Your task to perform on an android device: open app "Venmo" (install if not already installed) Image 0: 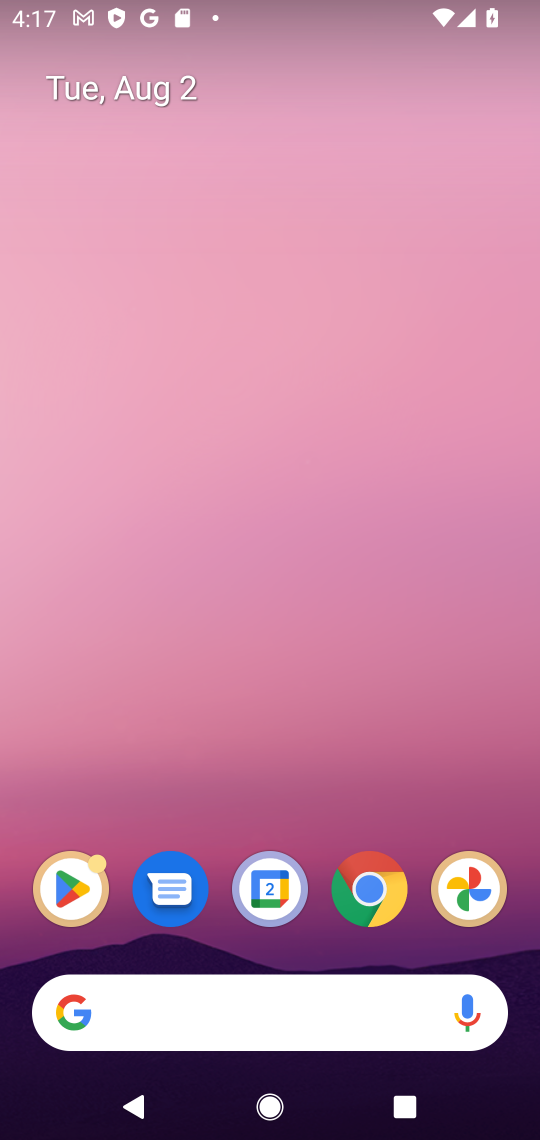
Step 0: drag from (490, 809) to (441, 683)
Your task to perform on an android device: open app "Venmo" (install if not already installed) Image 1: 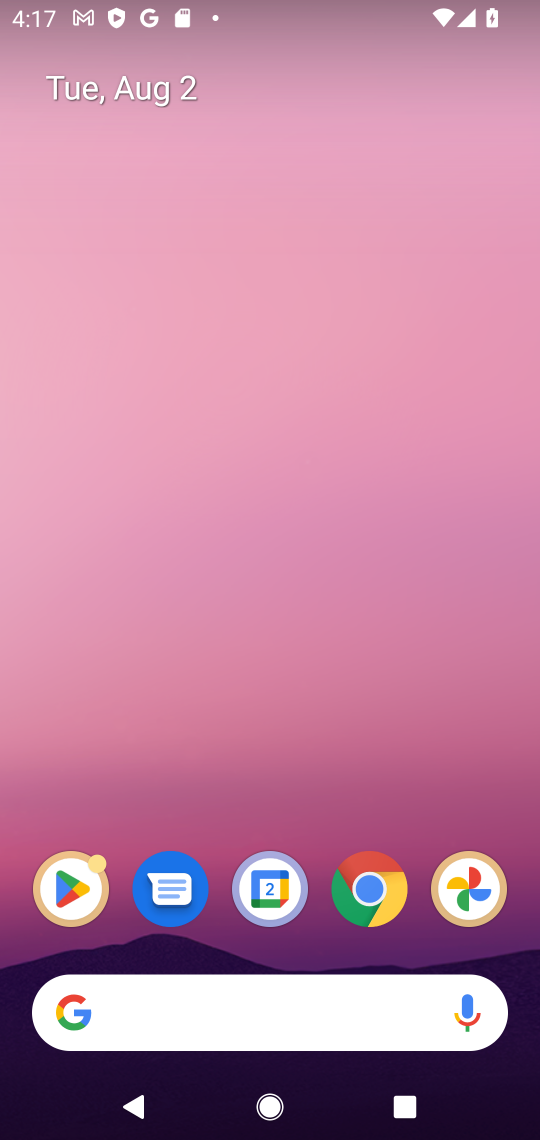
Step 1: click (101, 882)
Your task to perform on an android device: open app "Venmo" (install if not already installed) Image 2: 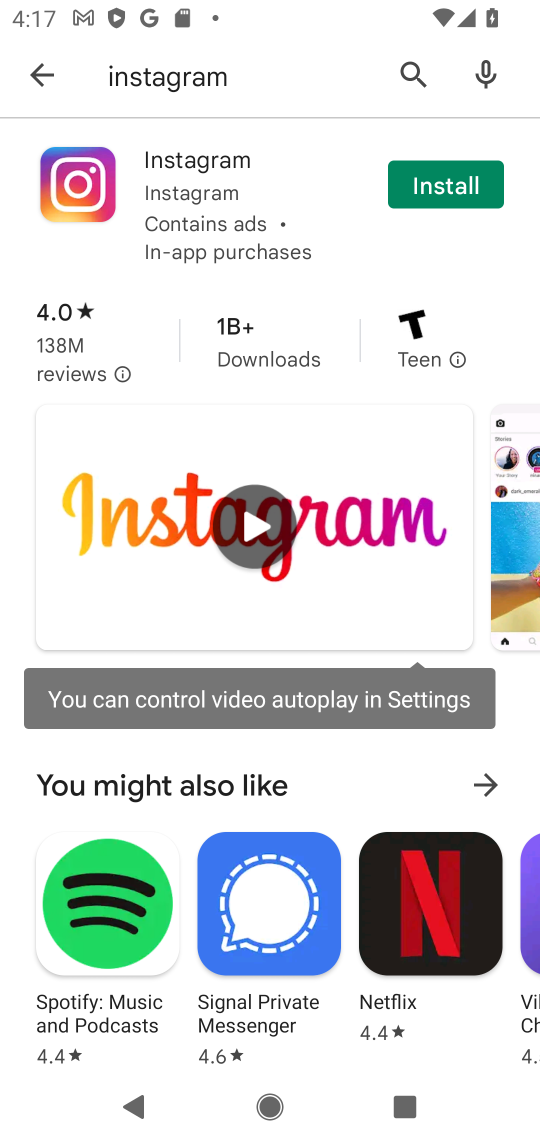
Step 2: click (409, 79)
Your task to perform on an android device: open app "Venmo" (install if not already installed) Image 3: 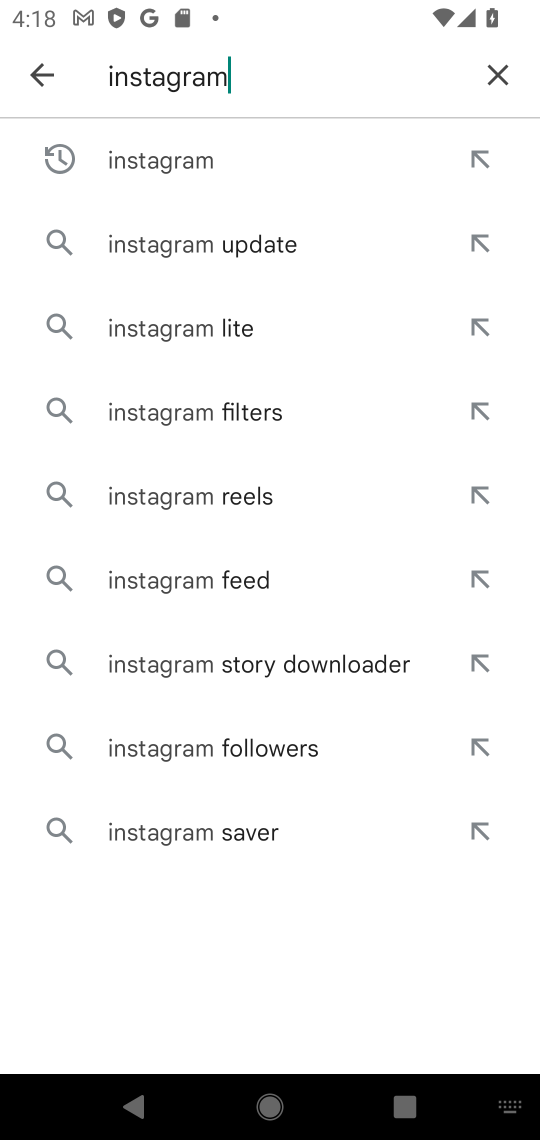
Step 3: click (501, 79)
Your task to perform on an android device: open app "Venmo" (install if not already installed) Image 4: 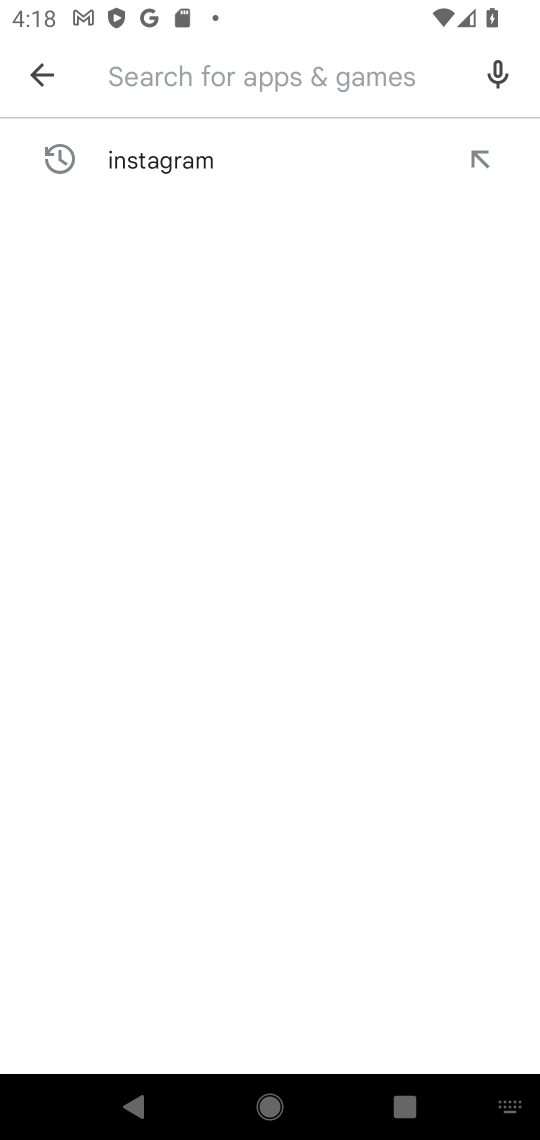
Step 4: type "venmo"
Your task to perform on an android device: open app "Venmo" (install if not already installed) Image 5: 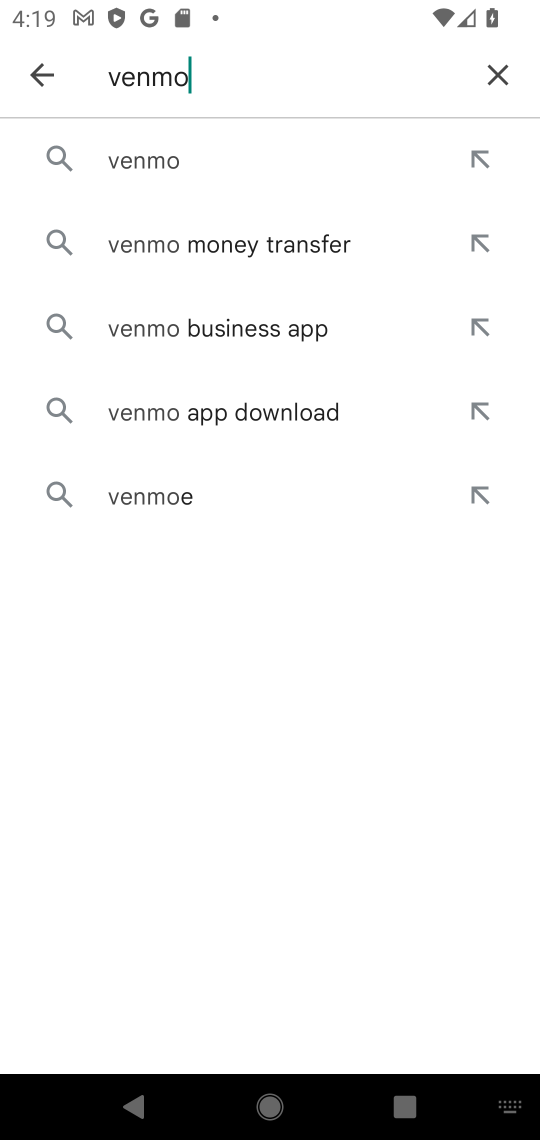
Step 5: click (265, 142)
Your task to perform on an android device: open app "Venmo" (install if not already installed) Image 6: 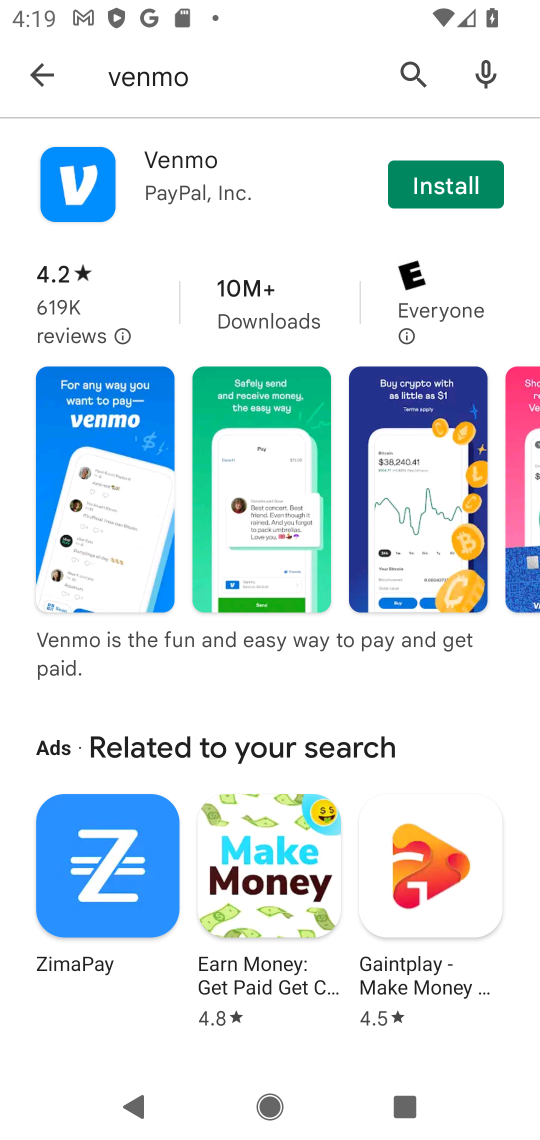
Step 6: click (398, 189)
Your task to perform on an android device: open app "Venmo" (install if not already installed) Image 7: 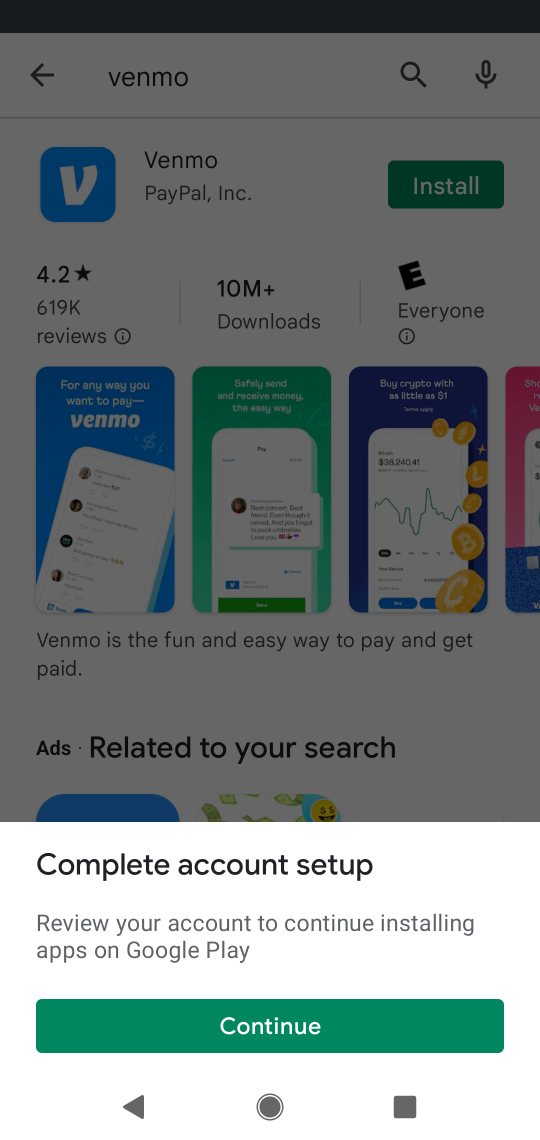
Step 7: click (227, 1043)
Your task to perform on an android device: open app "Venmo" (install if not already installed) Image 8: 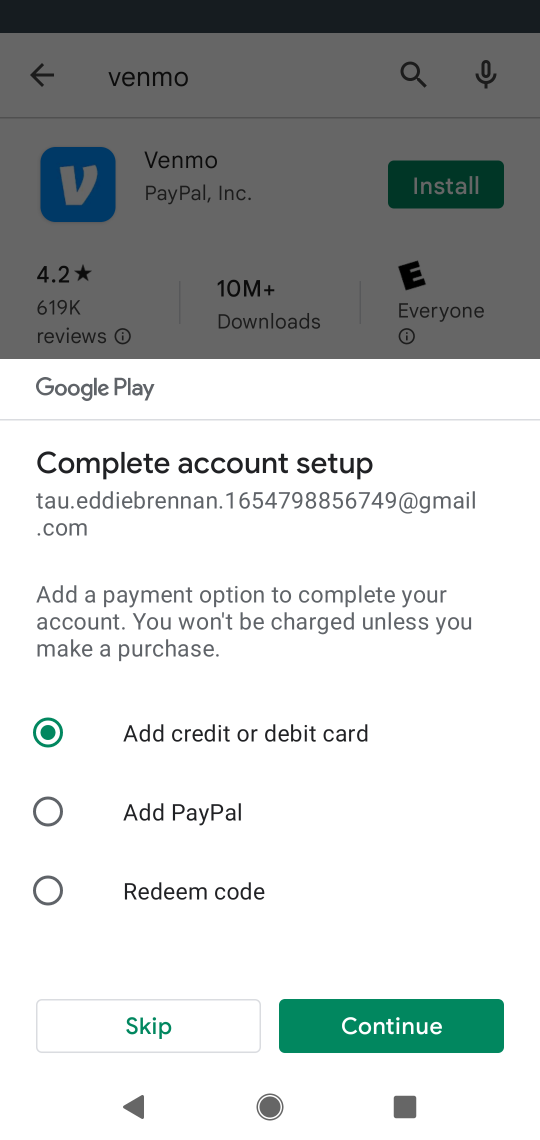
Step 8: click (122, 1039)
Your task to perform on an android device: open app "Venmo" (install if not already installed) Image 9: 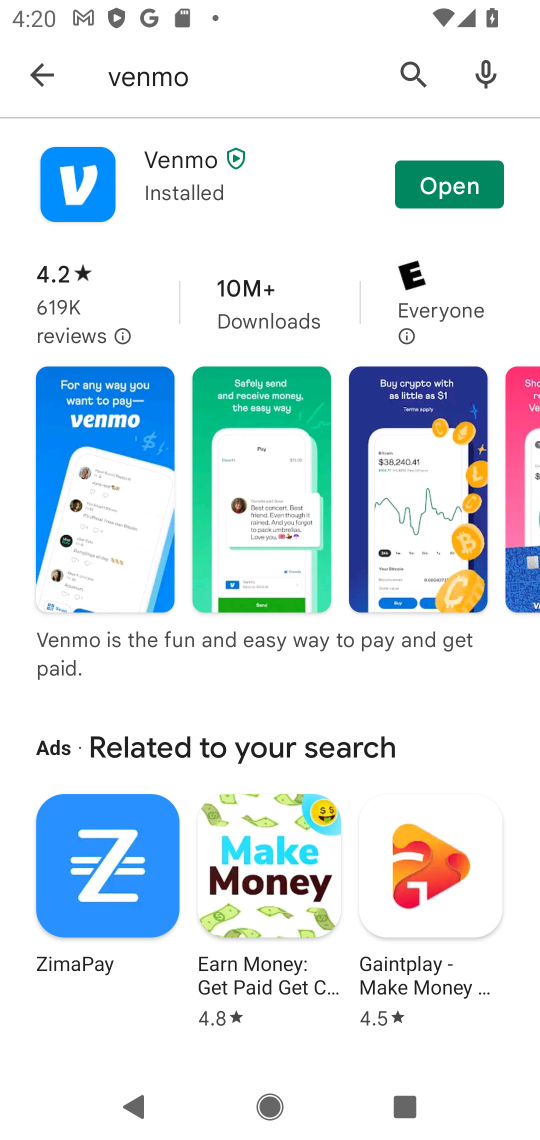
Step 9: click (444, 177)
Your task to perform on an android device: open app "Venmo" (install if not already installed) Image 10: 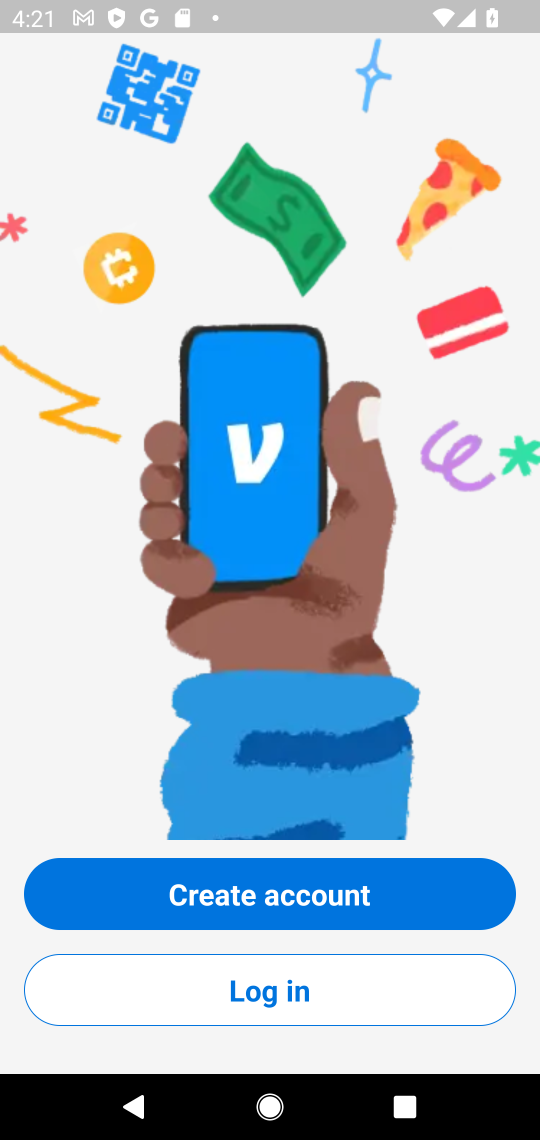
Step 10: task complete